Your task to perform on an android device: Search for razer naga on ebay, select the first entry, add it to the cart, then select checkout. Image 0: 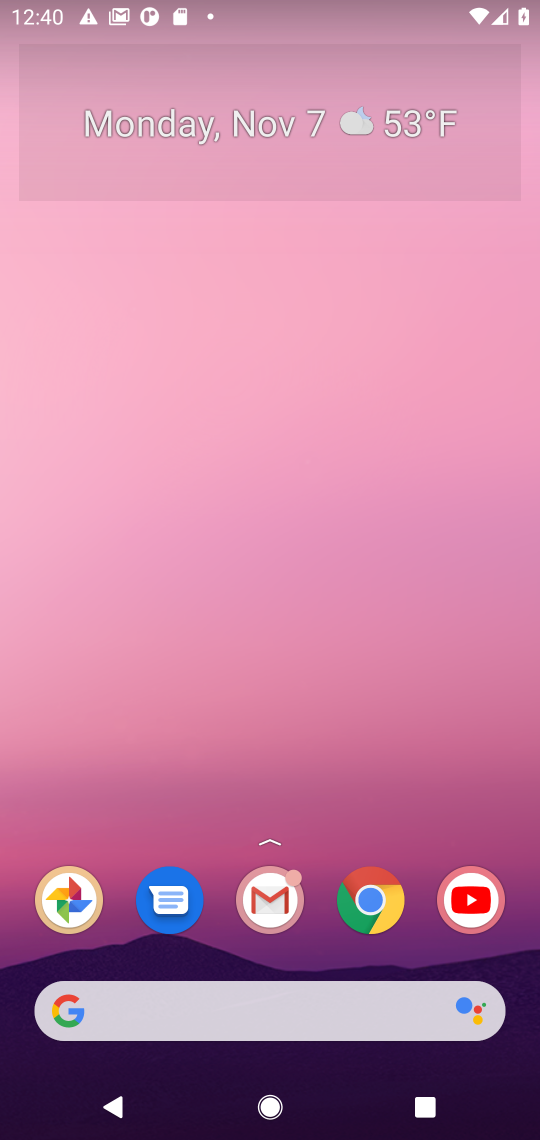
Step 0: click (246, 1038)
Your task to perform on an android device: Search for razer naga on ebay, select the first entry, add it to the cart, then select checkout. Image 1: 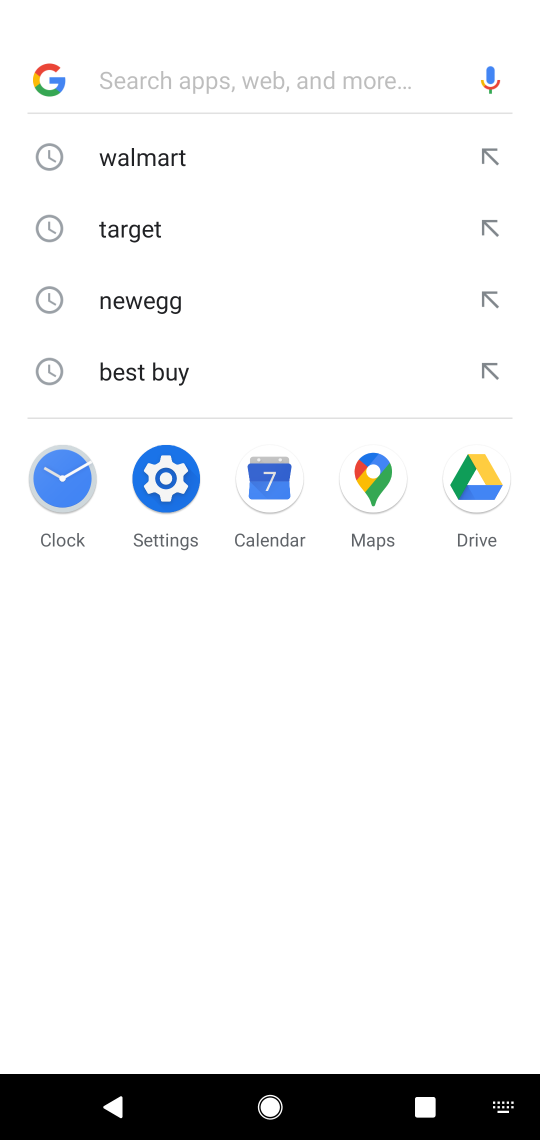
Step 1: type "ebay"
Your task to perform on an android device: Search for razer naga on ebay, select the first entry, add it to the cart, then select checkout. Image 2: 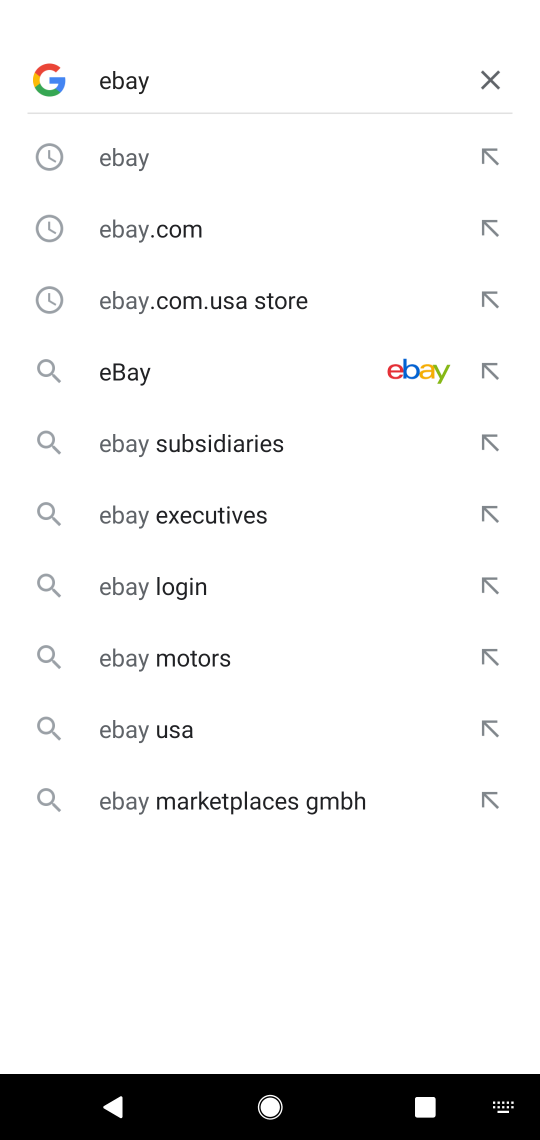
Step 2: task complete